Your task to perform on an android device: What's on my calendar tomorrow? Image 0: 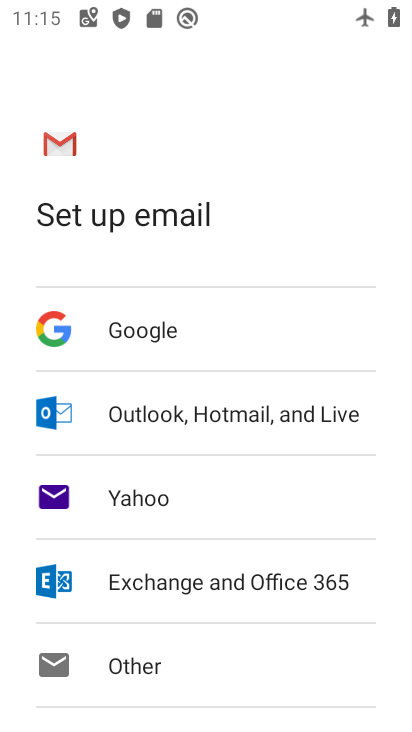
Step 0: press home button
Your task to perform on an android device: What's on my calendar tomorrow? Image 1: 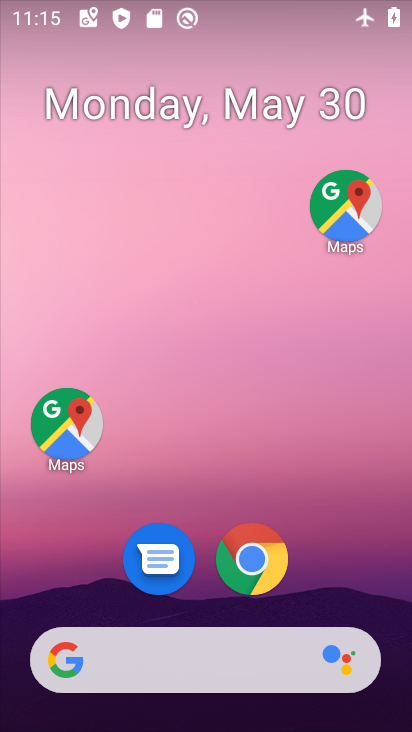
Step 1: drag from (359, 570) to (351, 99)
Your task to perform on an android device: What's on my calendar tomorrow? Image 2: 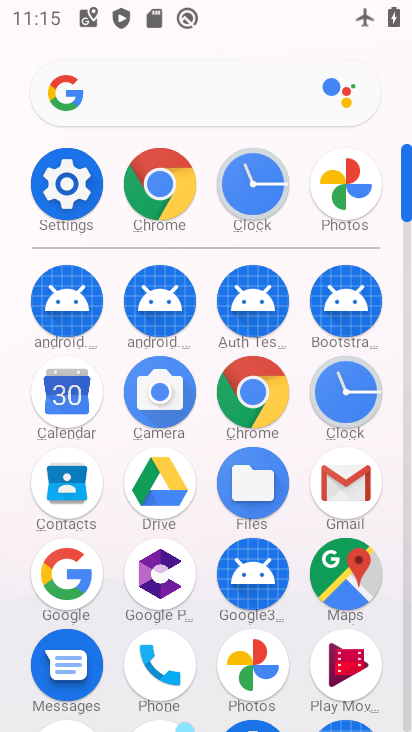
Step 2: click (69, 401)
Your task to perform on an android device: What's on my calendar tomorrow? Image 3: 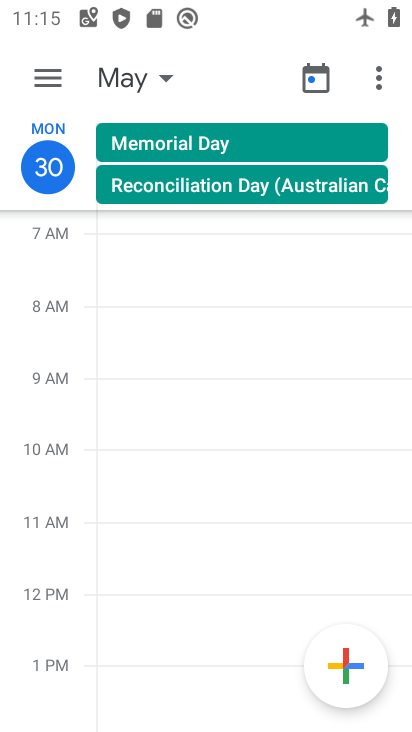
Step 3: click (110, 77)
Your task to perform on an android device: What's on my calendar tomorrow? Image 4: 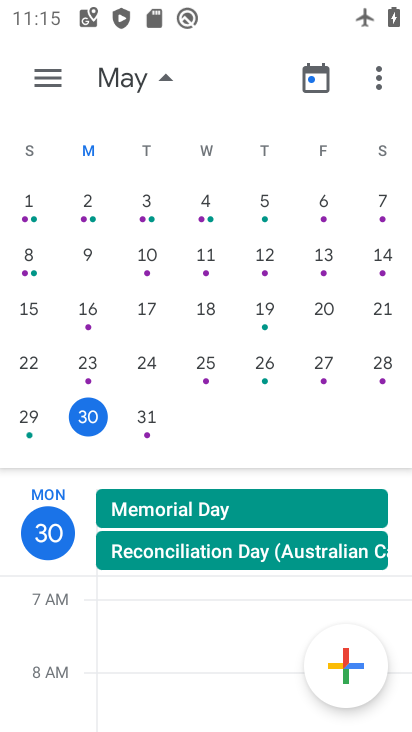
Step 4: click (152, 419)
Your task to perform on an android device: What's on my calendar tomorrow? Image 5: 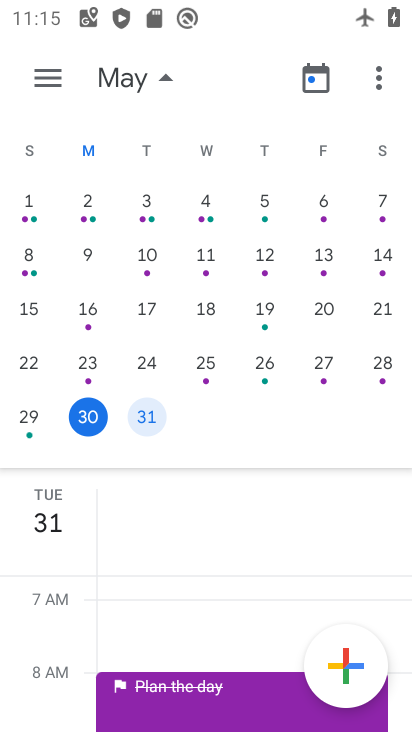
Step 5: click (131, 413)
Your task to perform on an android device: What's on my calendar tomorrow? Image 6: 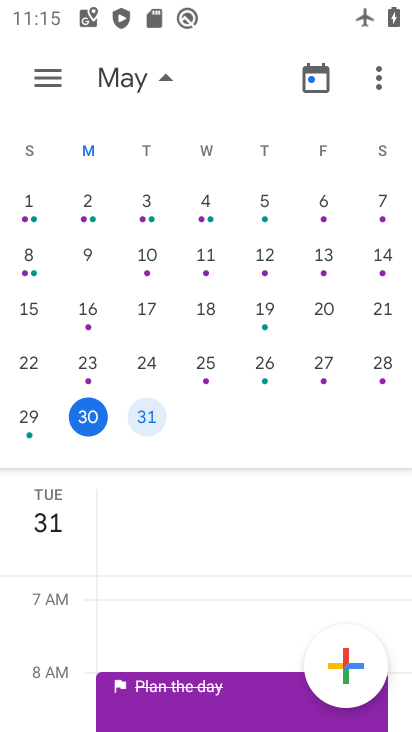
Step 6: click (147, 417)
Your task to perform on an android device: What's on my calendar tomorrow? Image 7: 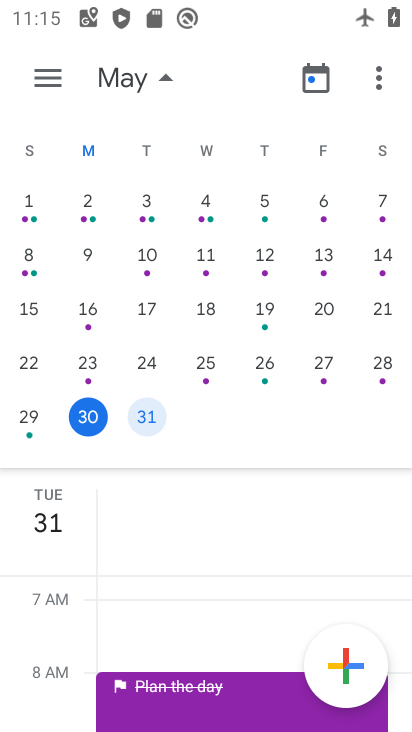
Step 7: task complete